Your task to perform on an android device: View the shopping cart on ebay.com. Search for macbook pro 15 inch on ebay.com, select the first entry, and add it to the cart. Image 0: 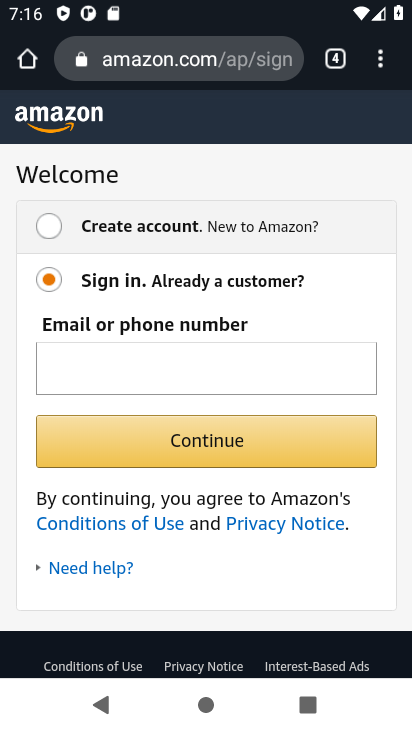
Step 0: click (166, 62)
Your task to perform on an android device: View the shopping cart on ebay.com. Search for macbook pro 15 inch on ebay.com, select the first entry, and add it to the cart. Image 1: 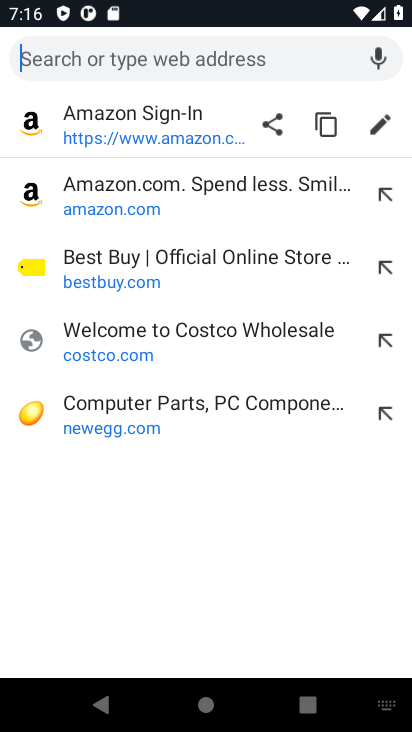
Step 1: type "ebay.com"
Your task to perform on an android device: View the shopping cart on ebay.com. Search for macbook pro 15 inch on ebay.com, select the first entry, and add it to the cart. Image 2: 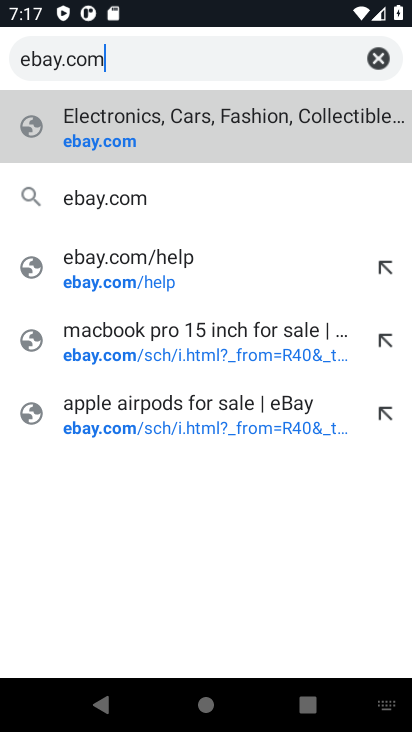
Step 2: click (110, 135)
Your task to perform on an android device: View the shopping cart on ebay.com. Search for macbook pro 15 inch on ebay.com, select the first entry, and add it to the cart. Image 3: 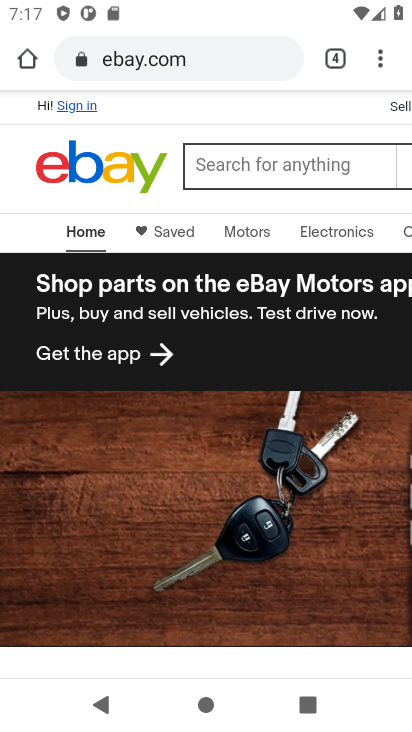
Step 3: drag from (333, 134) to (5, 125)
Your task to perform on an android device: View the shopping cart on ebay.com. Search for macbook pro 15 inch on ebay.com, select the first entry, and add it to the cart. Image 4: 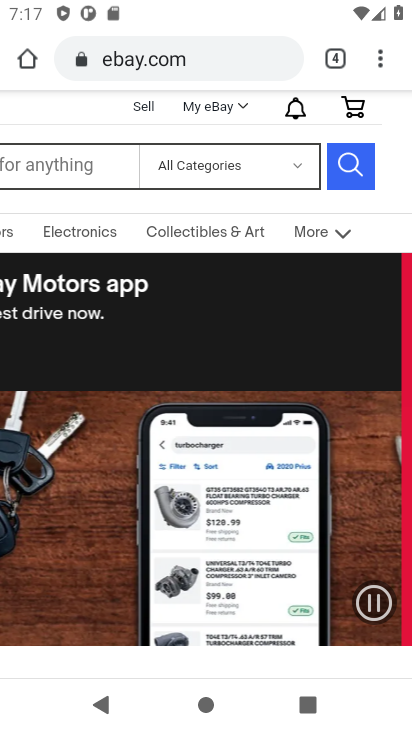
Step 4: click (353, 110)
Your task to perform on an android device: View the shopping cart on ebay.com. Search for macbook pro 15 inch on ebay.com, select the first entry, and add it to the cart. Image 5: 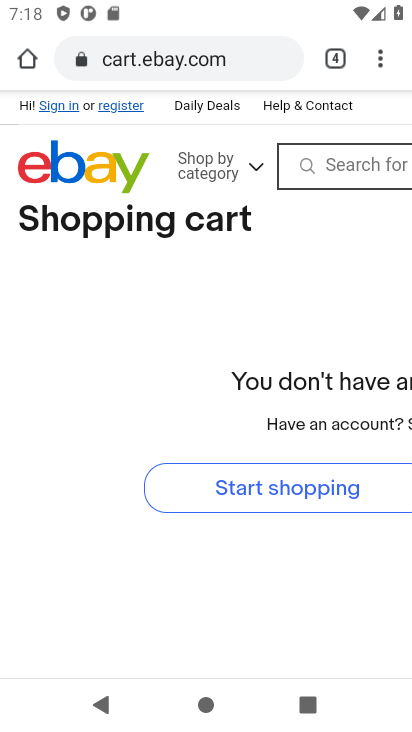
Step 5: click (351, 176)
Your task to perform on an android device: View the shopping cart on ebay.com. Search for macbook pro 15 inch on ebay.com, select the first entry, and add it to the cart. Image 6: 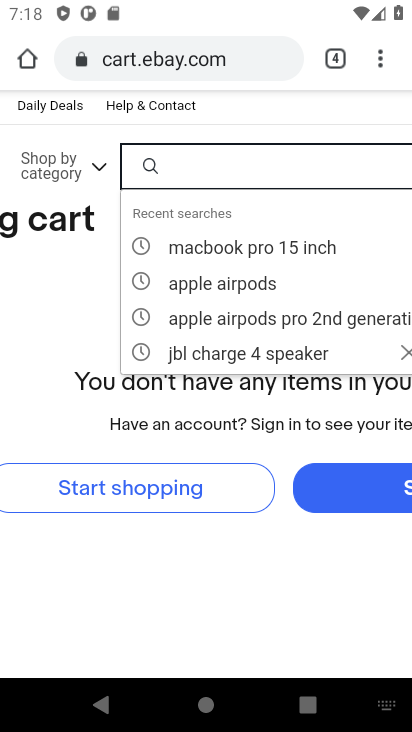
Step 6: click (282, 248)
Your task to perform on an android device: View the shopping cart on ebay.com. Search for macbook pro 15 inch on ebay.com, select the first entry, and add it to the cart. Image 7: 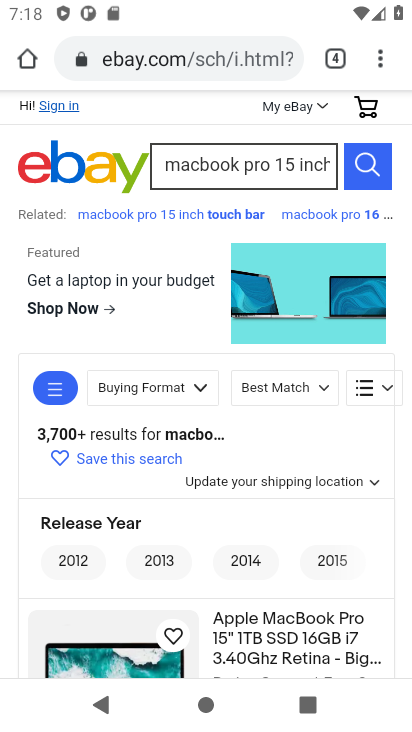
Step 7: drag from (241, 545) to (234, 220)
Your task to perform on an android device: View the shopping cart on ebay.com. Search for macbook pro 15 inch on ebay.com, select the first entry, and add it to the cart. Image 8: 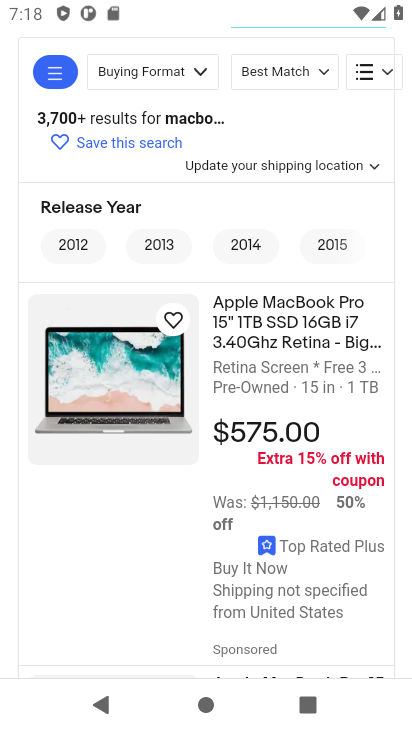
Step 8: click (246, 355)
Your task to perform on an android device: View the shopping cart on ebay.com. Search for macbook pro 15 inch on ebay.com, select the first entry, and add it to the cart. Image 9: 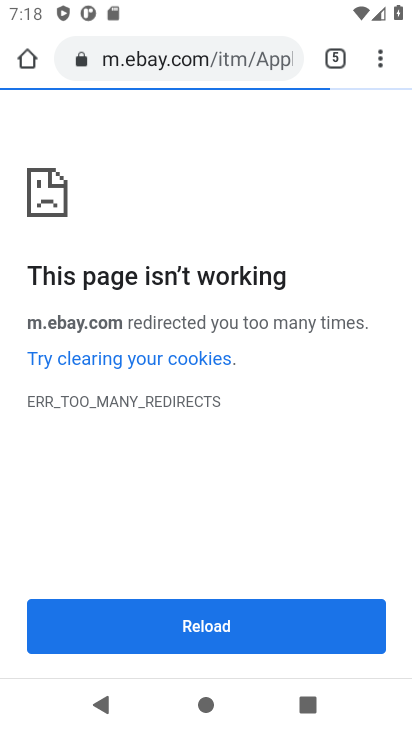
Step 9: task complete